Your task to perform on an android device: Show me popular games on the Play Store Image 0: 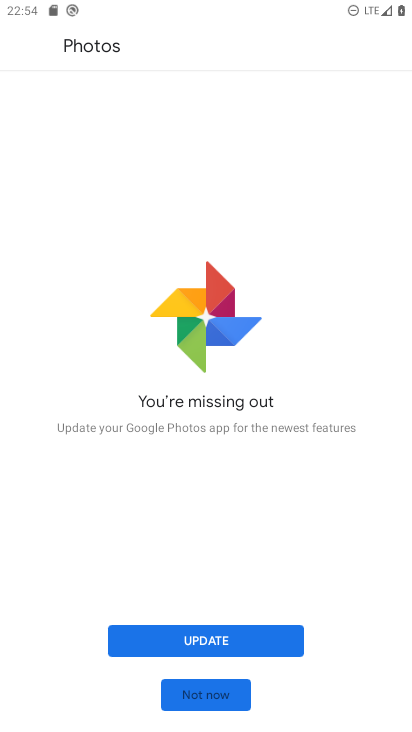
Step 0: press home button
Your task to perform on an android device: Show me popular games on the Play Store Image 1: 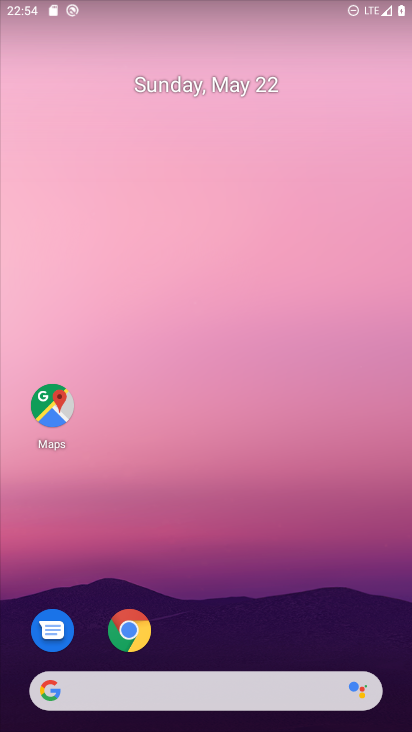
Step 1: drag from (184, 695) to (334, 248)
Your task to perform on an android device: Show me popular games on the Play Store Image 2: 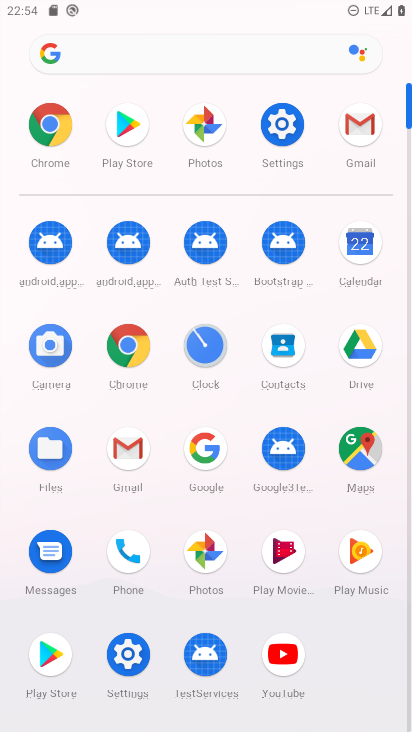
Step 2: click (52, 656)
Your task to perform on an android device: Show me popular games on the Play Store Image 3: 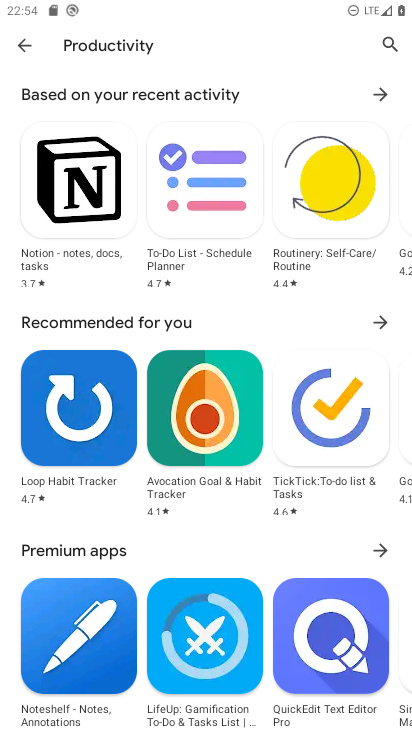
Step 3: click (34, 33)
Your task to perform on an android device: Show me popular games on the Play Store Image 4: 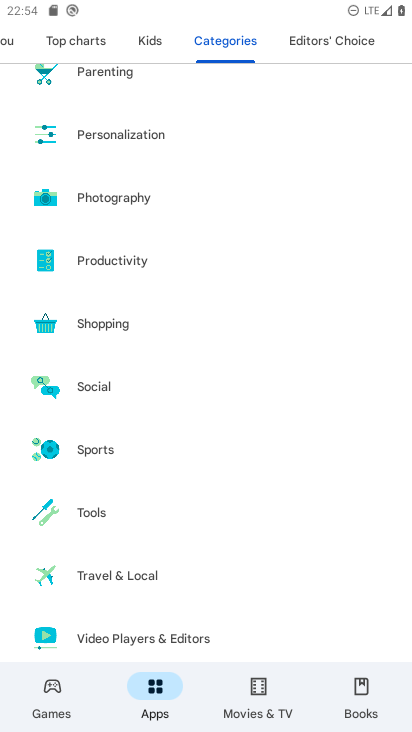
Step 4: click (50, 683)
Your task to perform on an android device: Show me popular games on the Play Store Image 5: 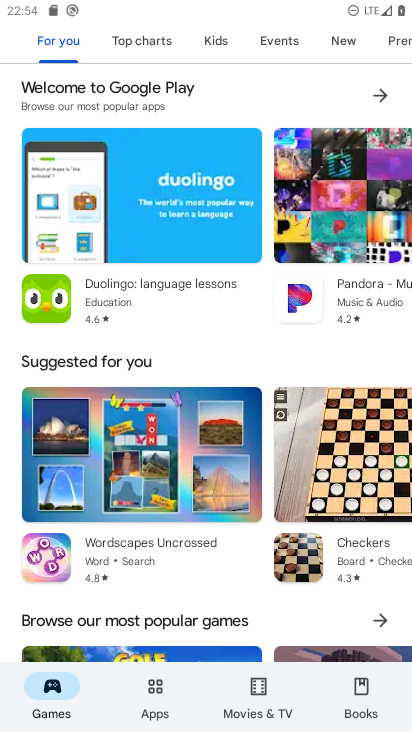
Step 5: click (147, 628)
Your task to perform on an android device: Show me popular games on the Play Store Image 6: 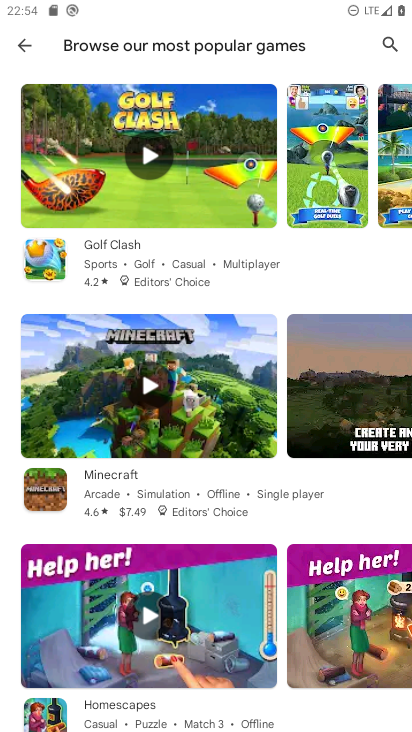
Step 6: task complete